Your task to perform on an android device: Open calendar and show me the first week of next month Image 0: 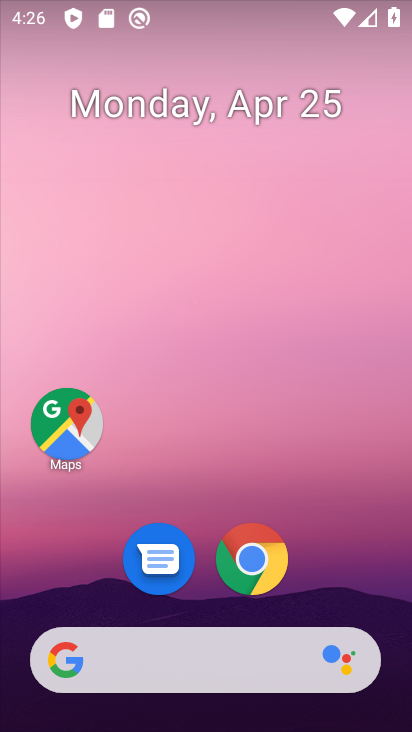
Step 0: click (255, 100)
Your task to perform on an android device: Open calendar and show me the first week of next month Image 1: 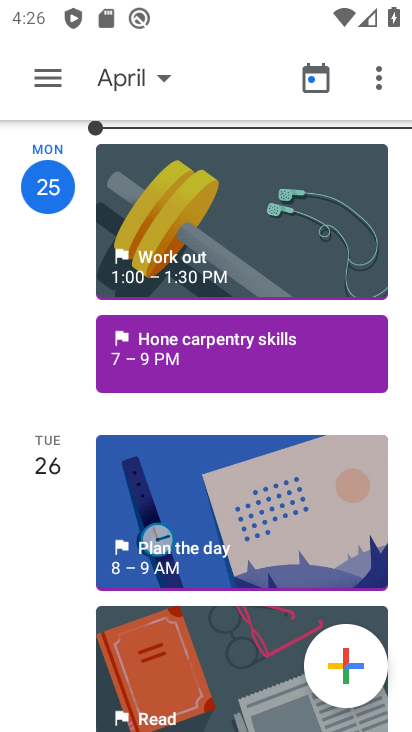
Step 1: click (146, 82)
Your task to perform on an android device: Open calendar and show me the first week of next month Image 2: 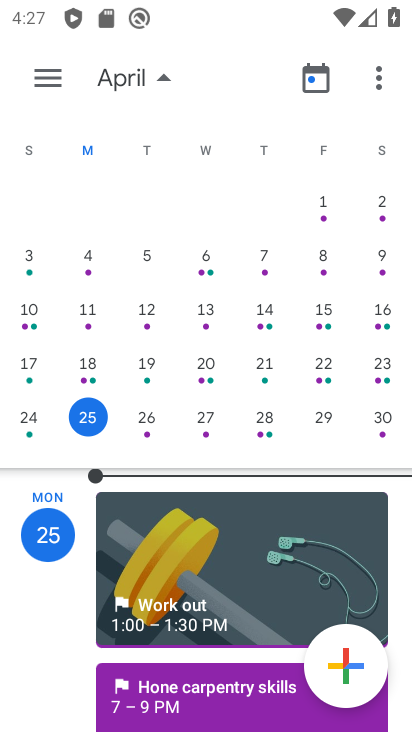
Step 2: drag from (351, 370) to (106, 205)
Your task to perform on an android device: Open calendar and show me the first week of next month Image 3: 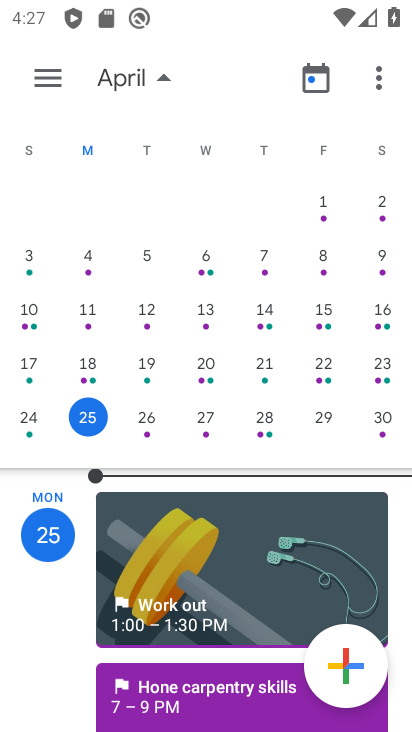
Step 3: click (354, 435)
Your task to perform on an android device: Open calendar and show me the first week of next month Image 4: 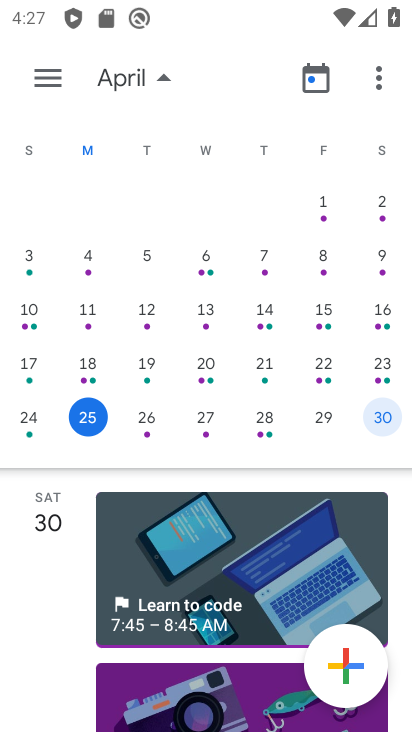
Step 4: drag from (374, 363) to (12, 281)
Your task to perform on an android device: Open calendar and show me the first week of next month Image 5: 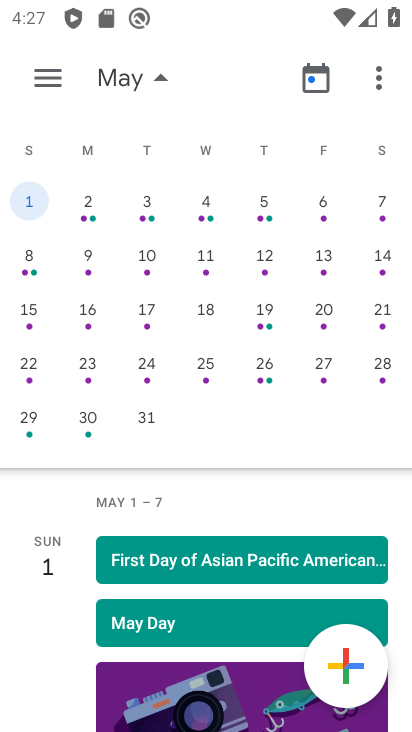
Step 5: click (35, 208)
Your task to perform on an android device: Open calendar and show me the first week of next month Image 6: 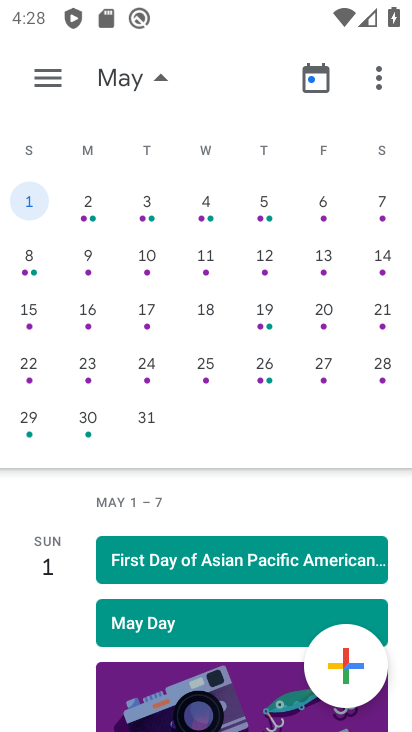
Step 6: task complete